Your task to perform on an android device: What's the weather going to be tomorrow? Image 0: 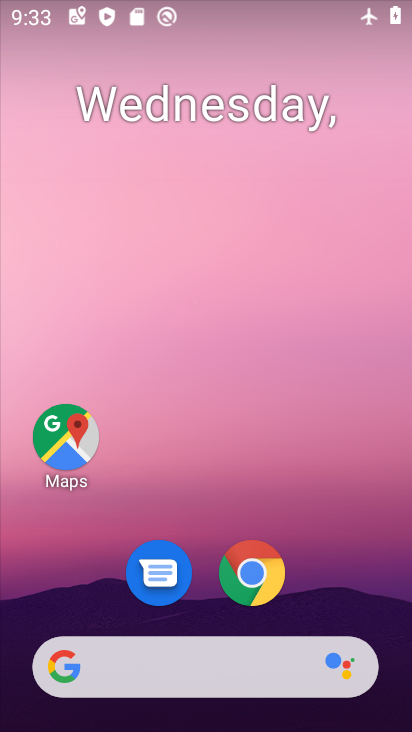
Step 0: drag from (386, 597) to (378, 184)
Your task to perform on an android device: What's the weather going to be tomorrow? Image 1: 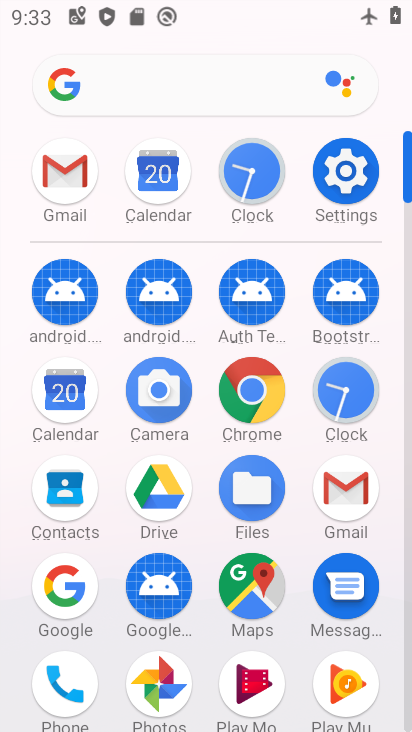
Step 1: click (89, 590)
Your task to perform on an android device: What's the weather going to be tomorrow? Image 2: 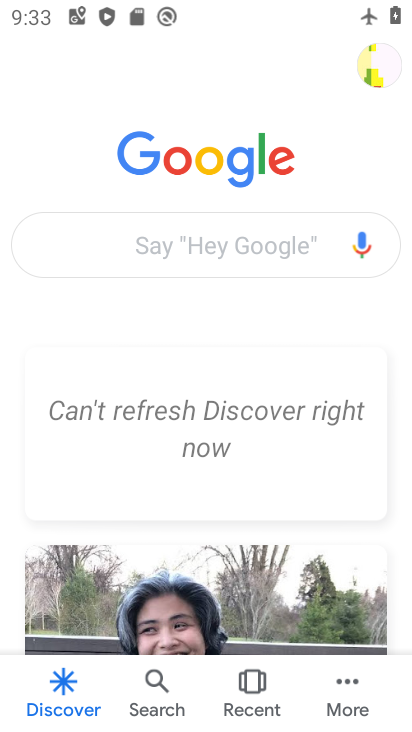
Step 2: task complete